Your task to perform on an android device: see tabs open on other devices in the chrome app Image 0: 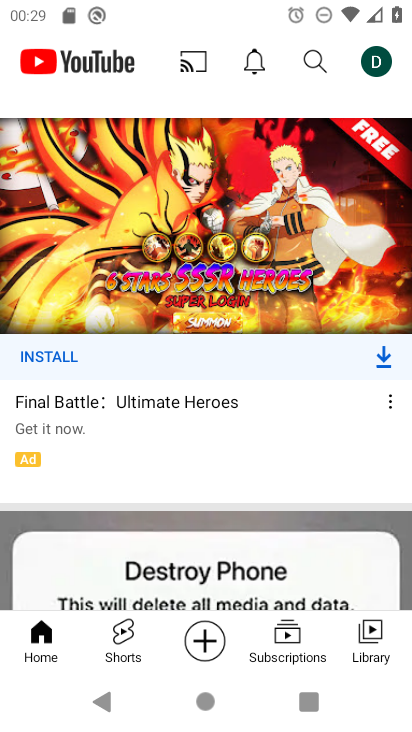
Step 0: press home button
Your task to perform on an android device: see tabs open on other devices in the chrome app Image 1: 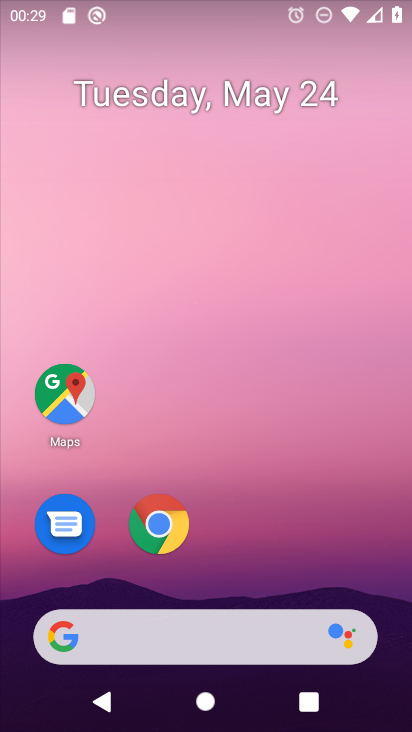
Step 1: click (183, 538)
Your task to perform on an android device: see tabs open on other devices in the chrome app Image 2: 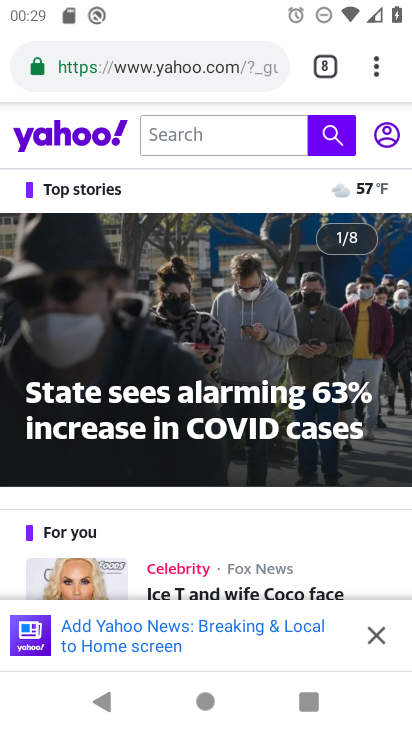
Step 2: click (375, 61)
Your task to perform on an android device: see tabs open on other devices in the chrome app Image 3: 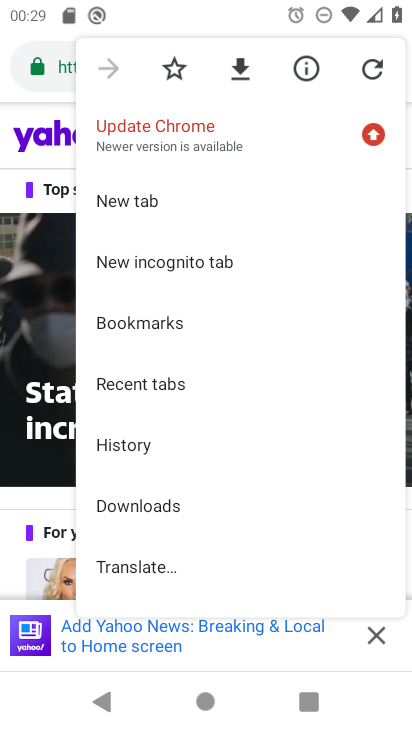
Step 3: click (163, 387)
Your task to perform on an android device: see tabs open on other devices in the chrome app Image 4: 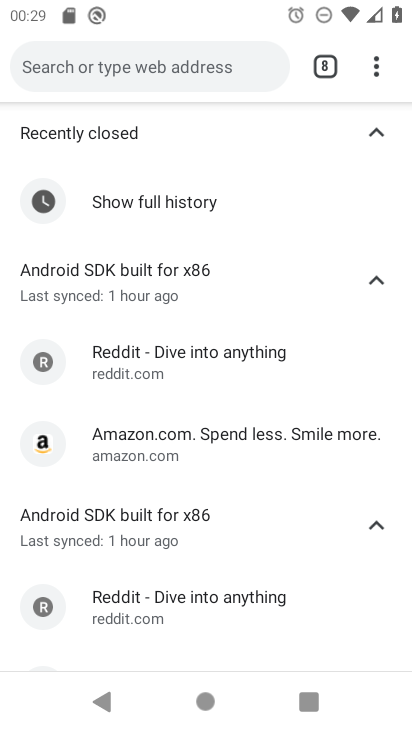
Step 4: task complete